Your task to perform on an android device: Search for "asus rog" on costco.com, select the first entry, add it to the cart, then select checkout. Image 0: 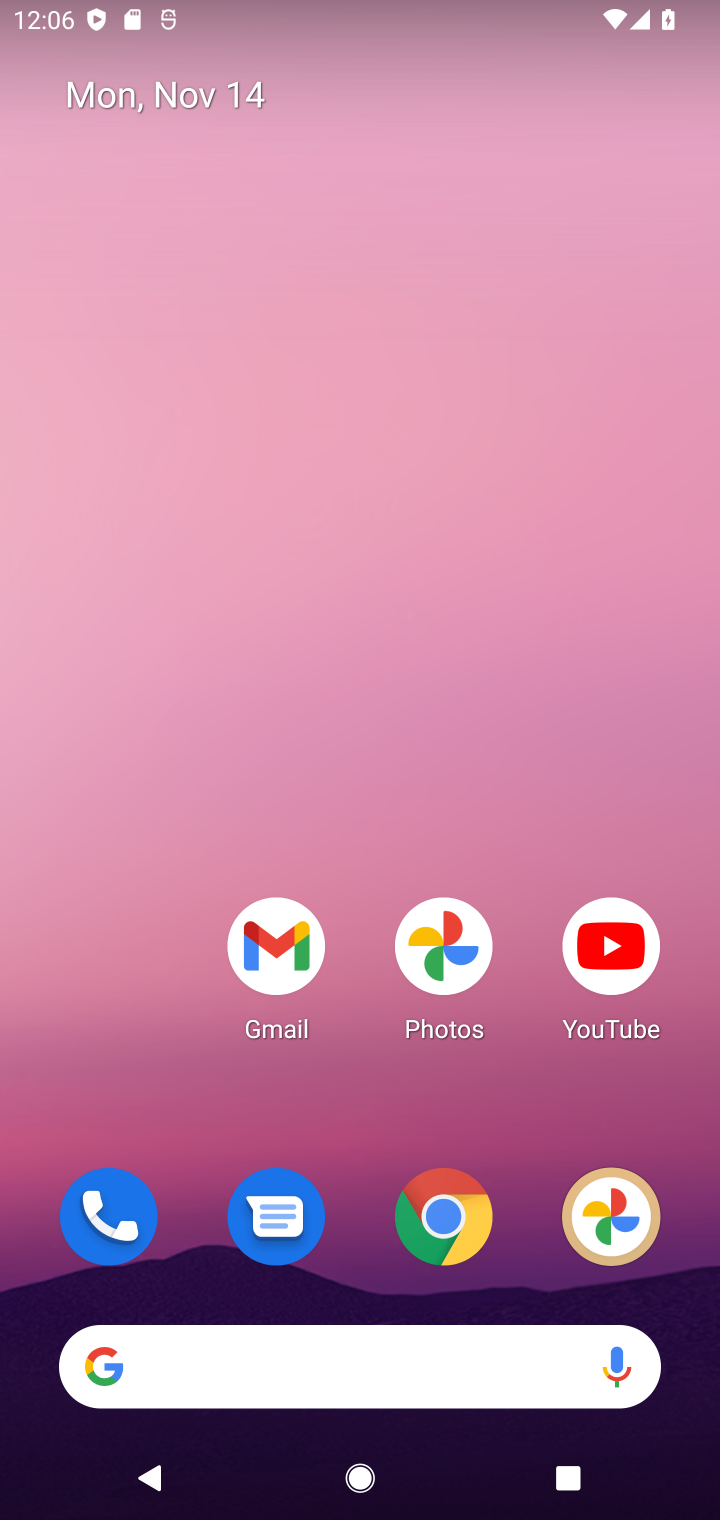
Step 0: click (437, 1222)
Your task to perform on an android device: Search for "asus rog" on costco.com, select the first entry, add it to the cart, then select checkout. Image 1: 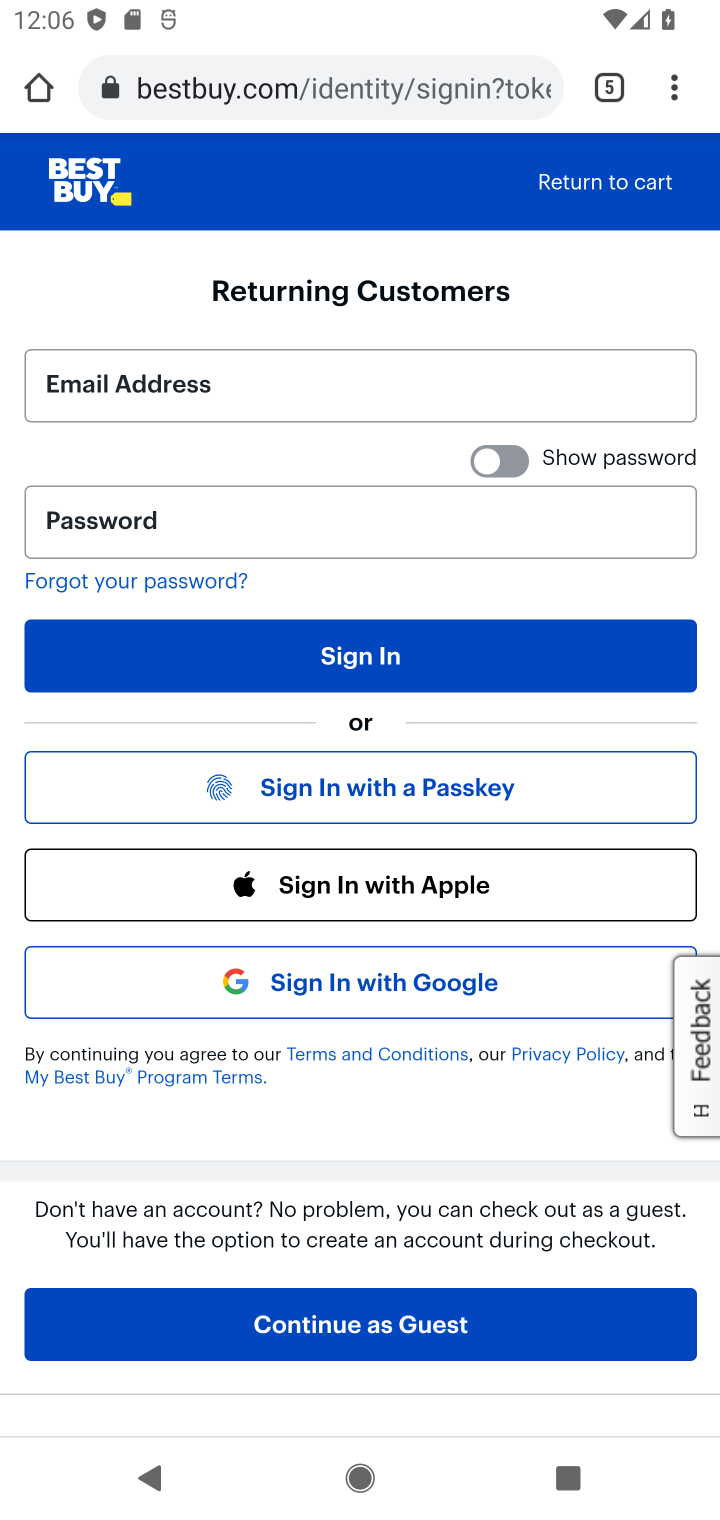
Step 1: click (612, 86)
Your task to perform on an android device: Search for "asus rog" on costco.com, select the first entry, add it to the cart, then select checkout. Image 2: 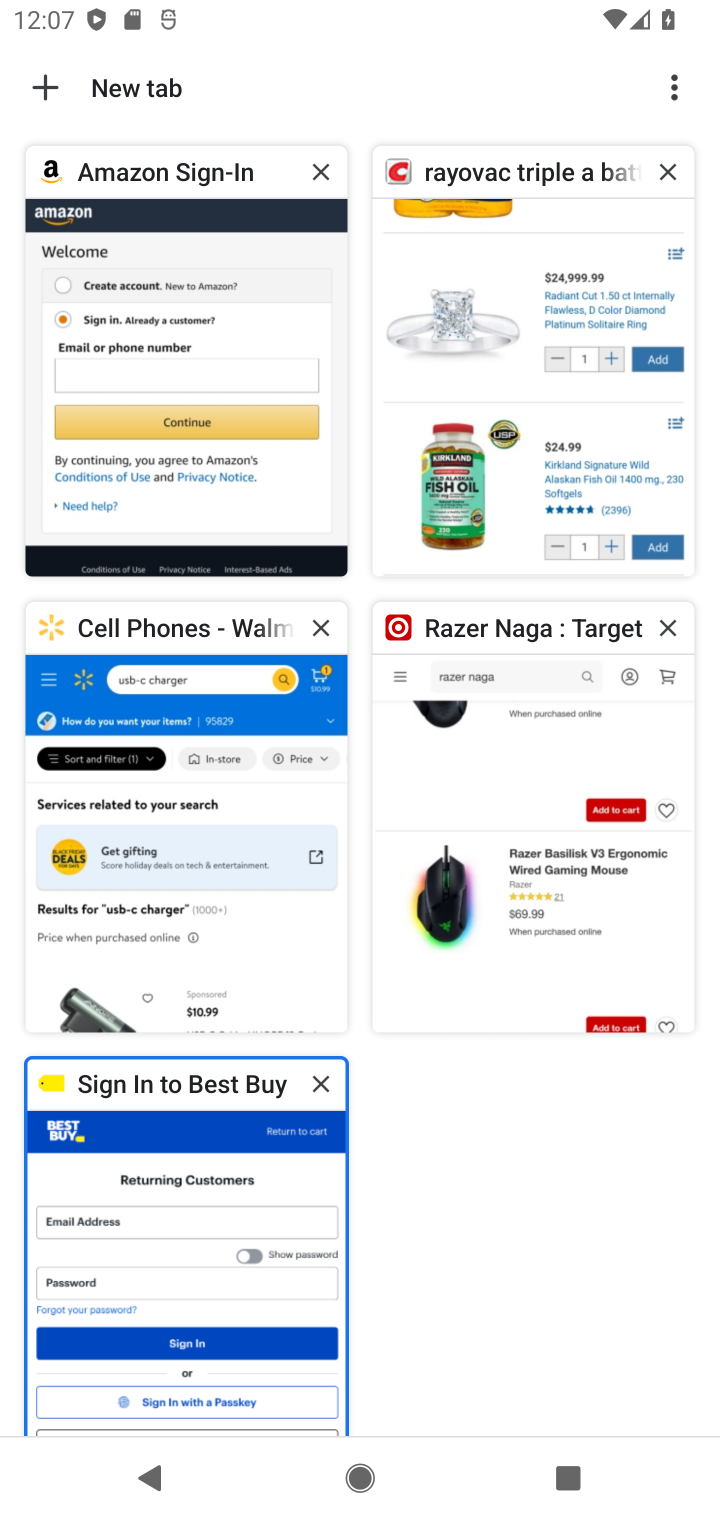
Step 2: click (541, 411)
Your task to perform on an android device: Search for "asus rog" on costco.com, select the first entry, add it to the cart, then select checkout. Image 3: 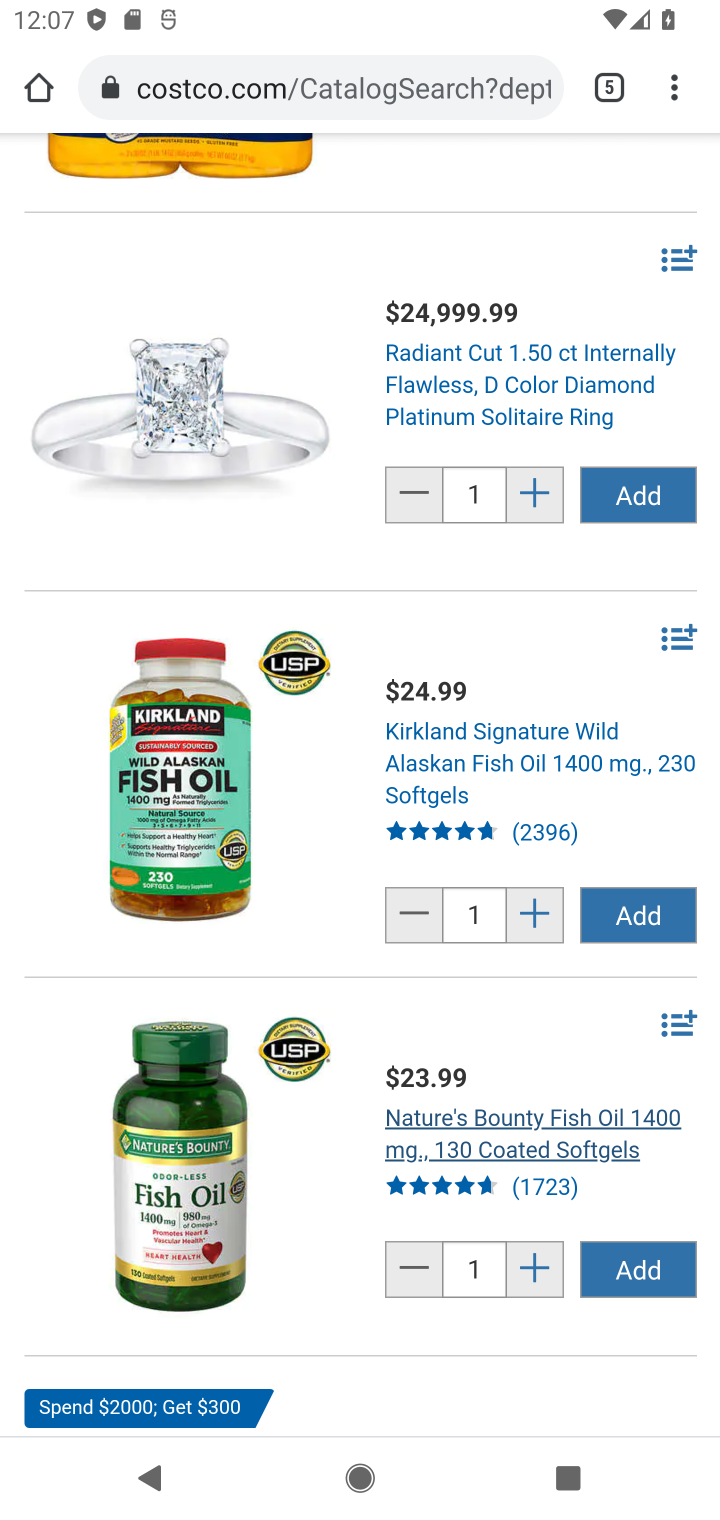
Step 3: drag from (341, 232) to (396, 1467)
Your task to perform on an android device: Search for "asus rog" on costco.com, select the first entry, add it to the cart, then select checkout. Image 4: 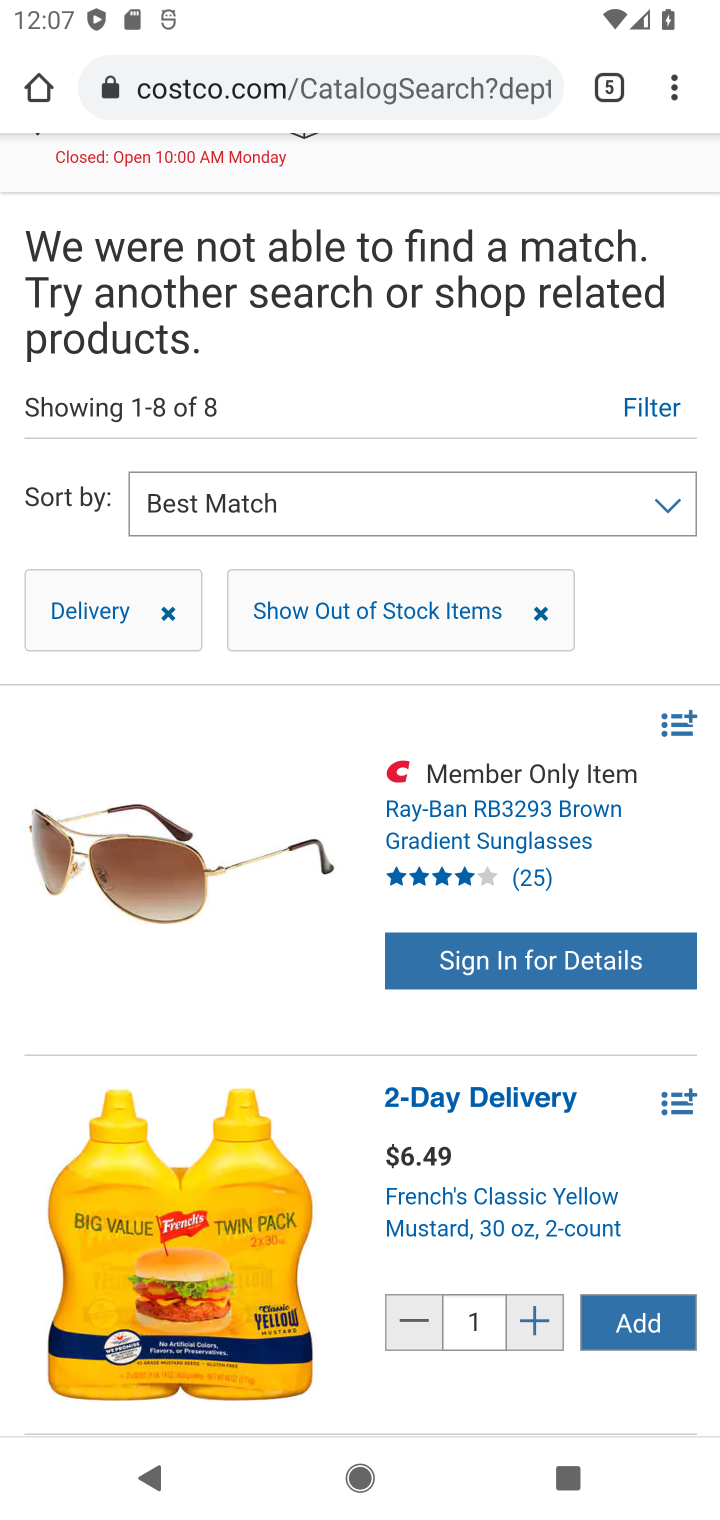
Step 4: drag from (519, 241) to (563, 1287)
Your task to perform on an android device: Search for "asus rog" on costco.com, select the first entry, add it to the cart, then select checkout. Image 5: 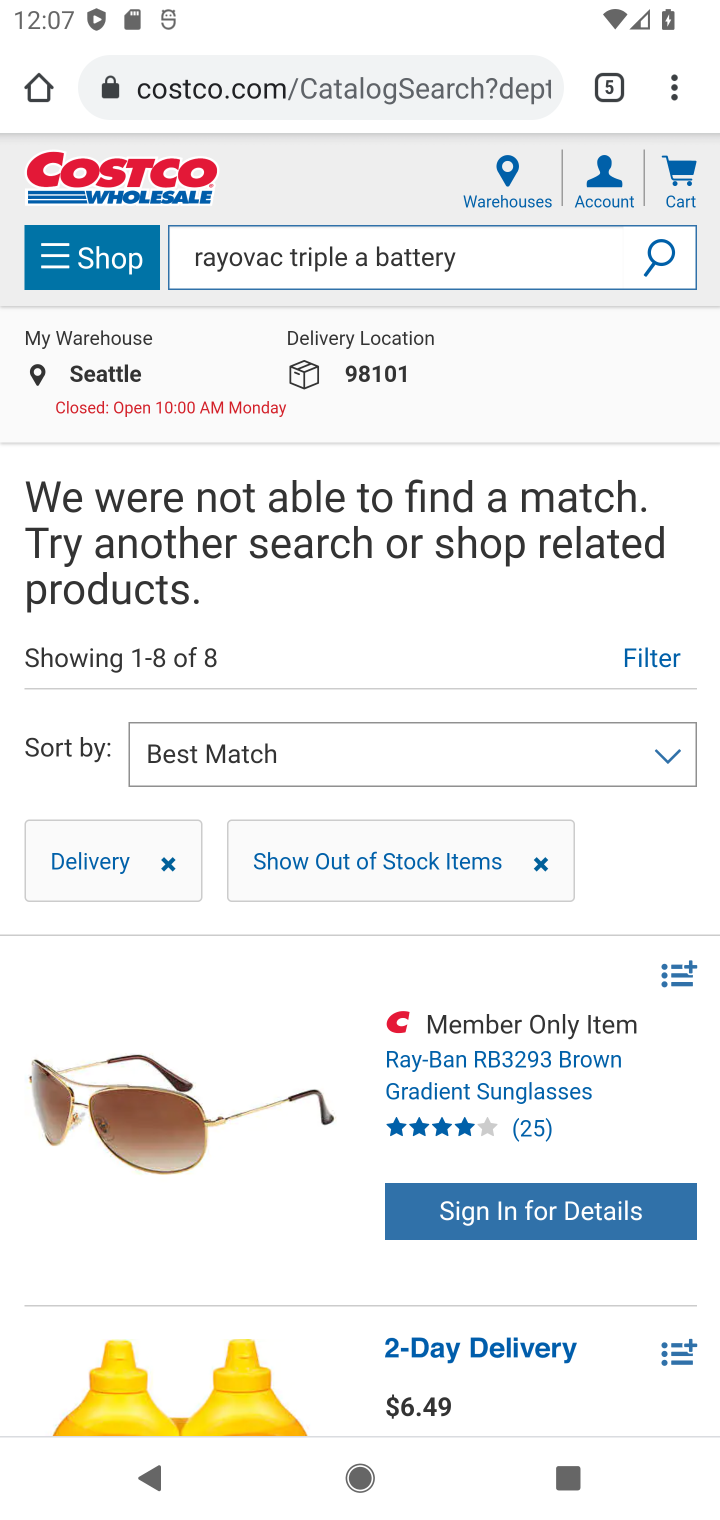
Step 5: click (419, 256)
Your task to perform on an android device: Search for "asus rog" on costco.com, select the first entry, add it to the cart, then select checkout. Image 6: 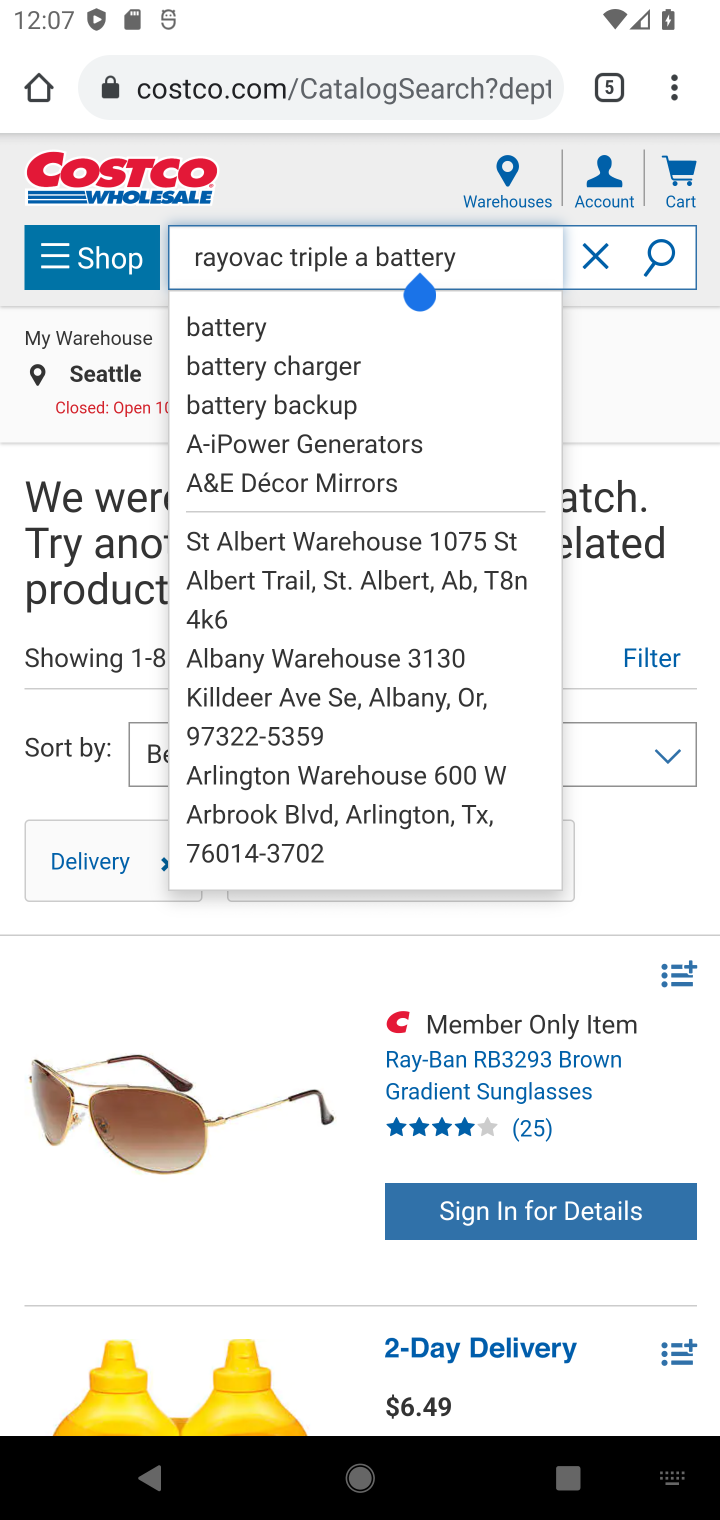
Step 6: click (588, 268)
Your task to perform on an android device: Search for "asus rog" on costco.com, select the first entry, add it to the cart, then select checkout. Image 7: 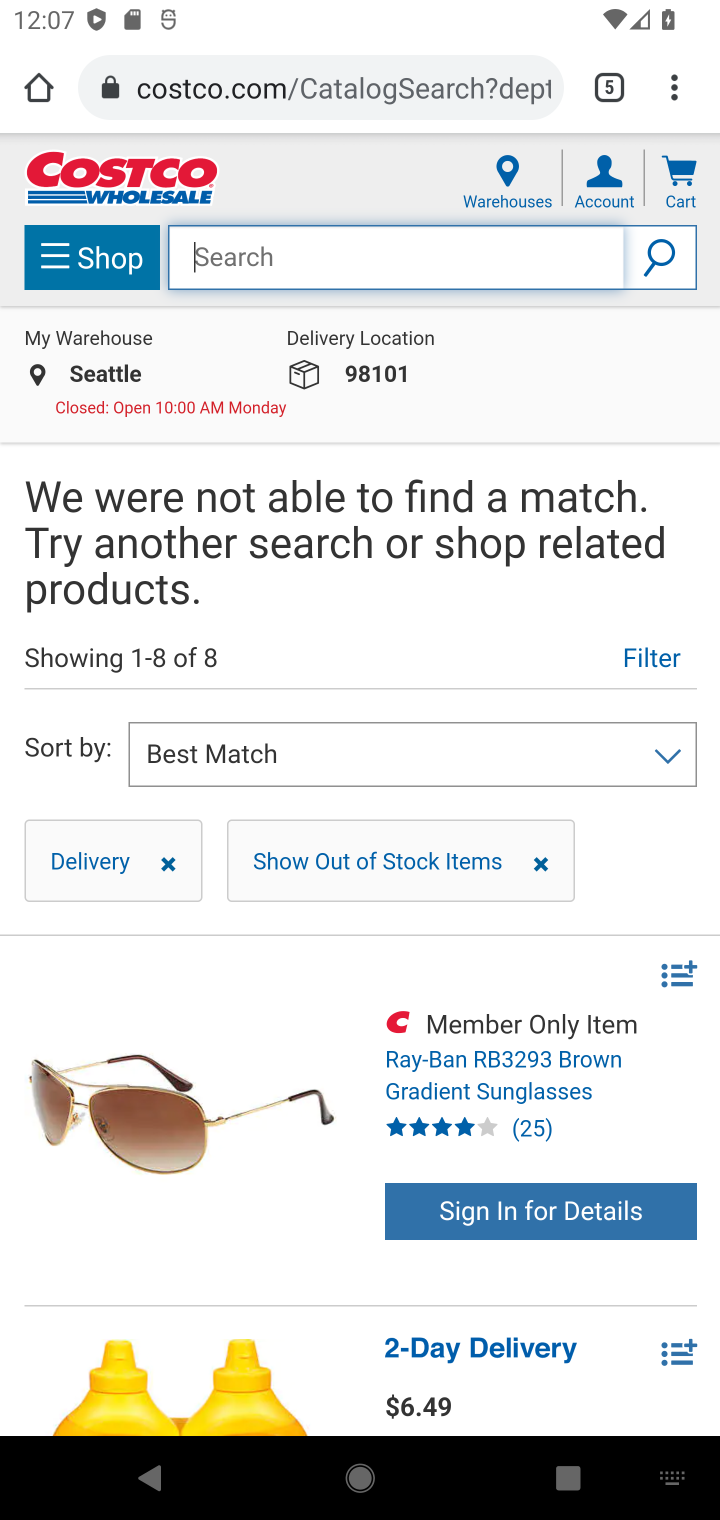
Step 7: type "macbook"
Your task to perform on an android device: Search for "asus rog" on costco.com, select the first entry, add it to the cart, then select checkout. Image 8: 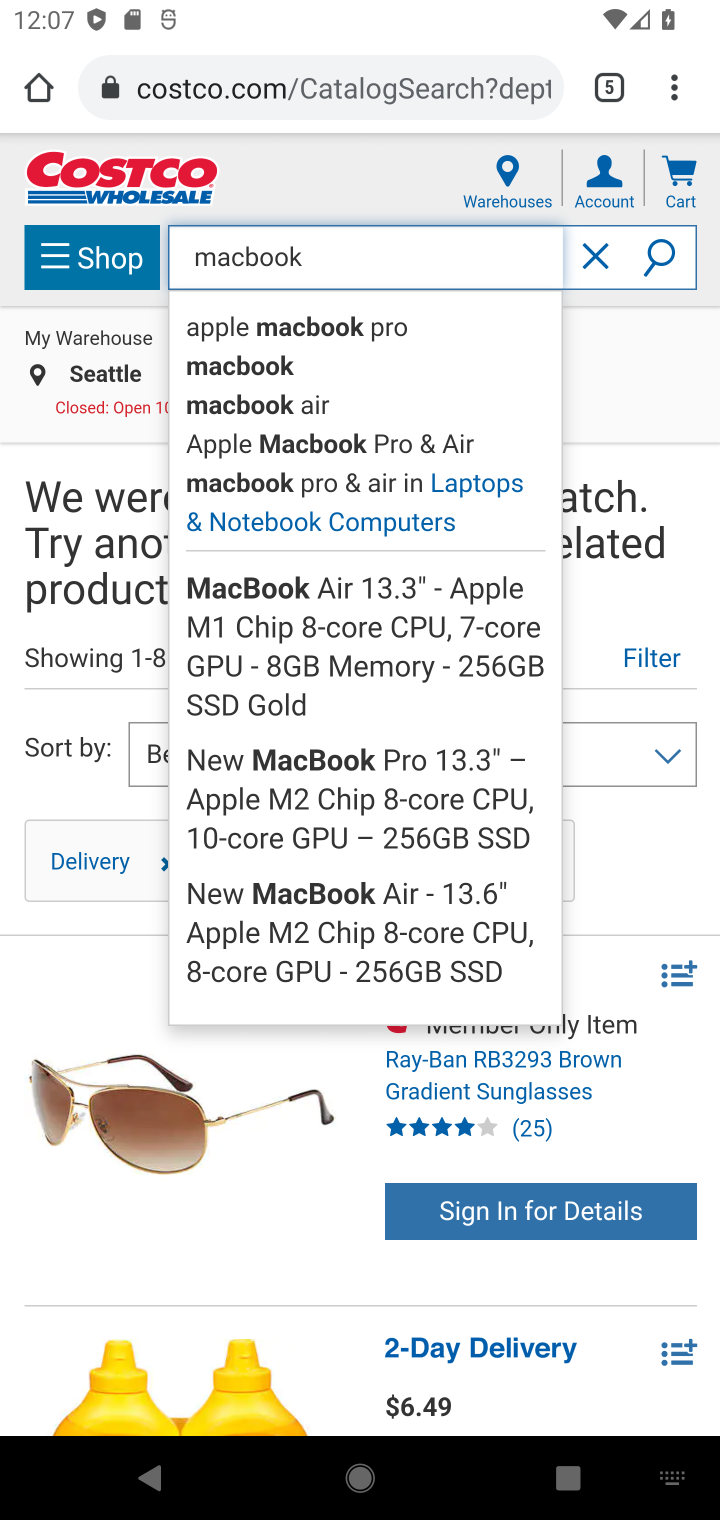
Step 8: click (595, 255)
Your task to perform on an android device: Search for "asus rog" on costco.com, select the first entry, add it to the cart, then select checkout. Image 9: 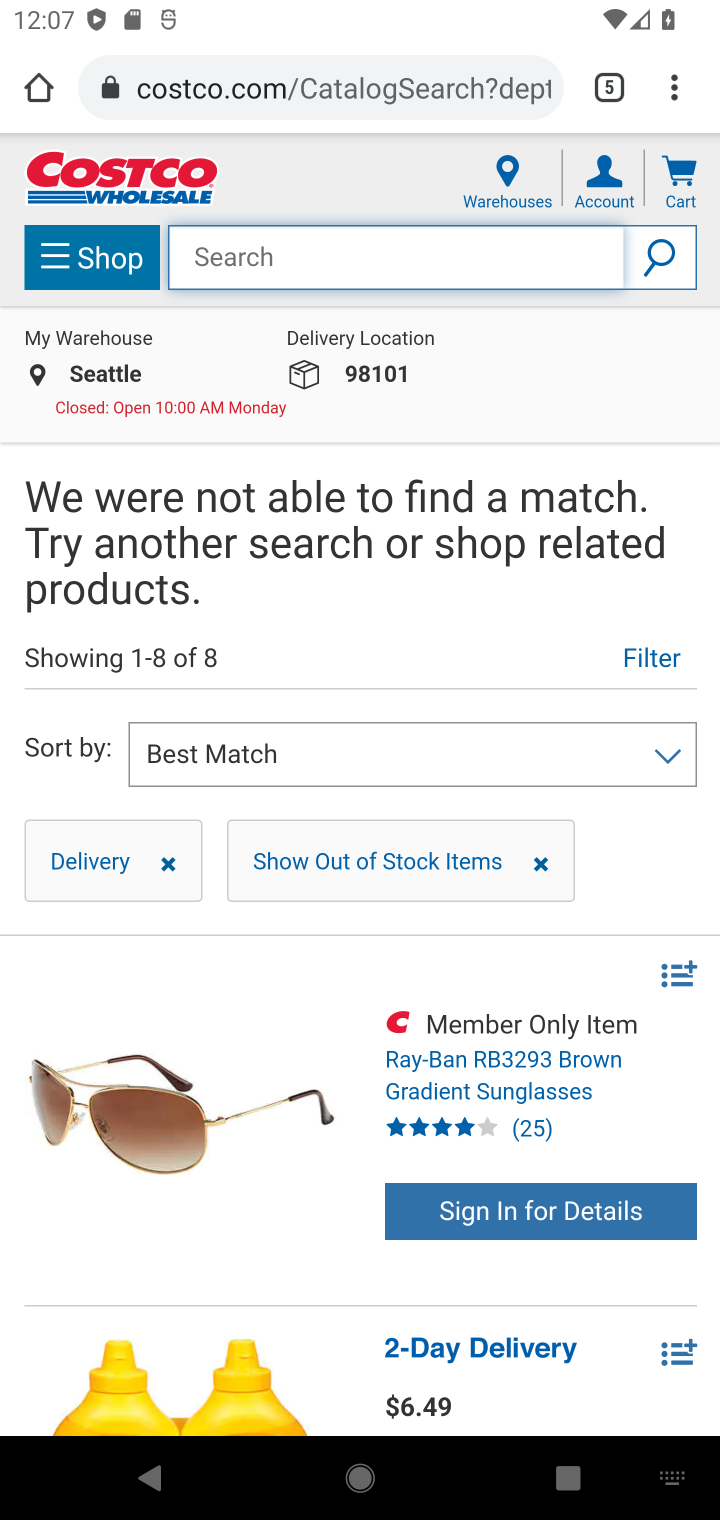
Step 9: type "asus rog"
Your task to perform on an android device: Search for "asus rog" on costco.com, select the first entry, add it to the cart, then select checkout. Image 10: 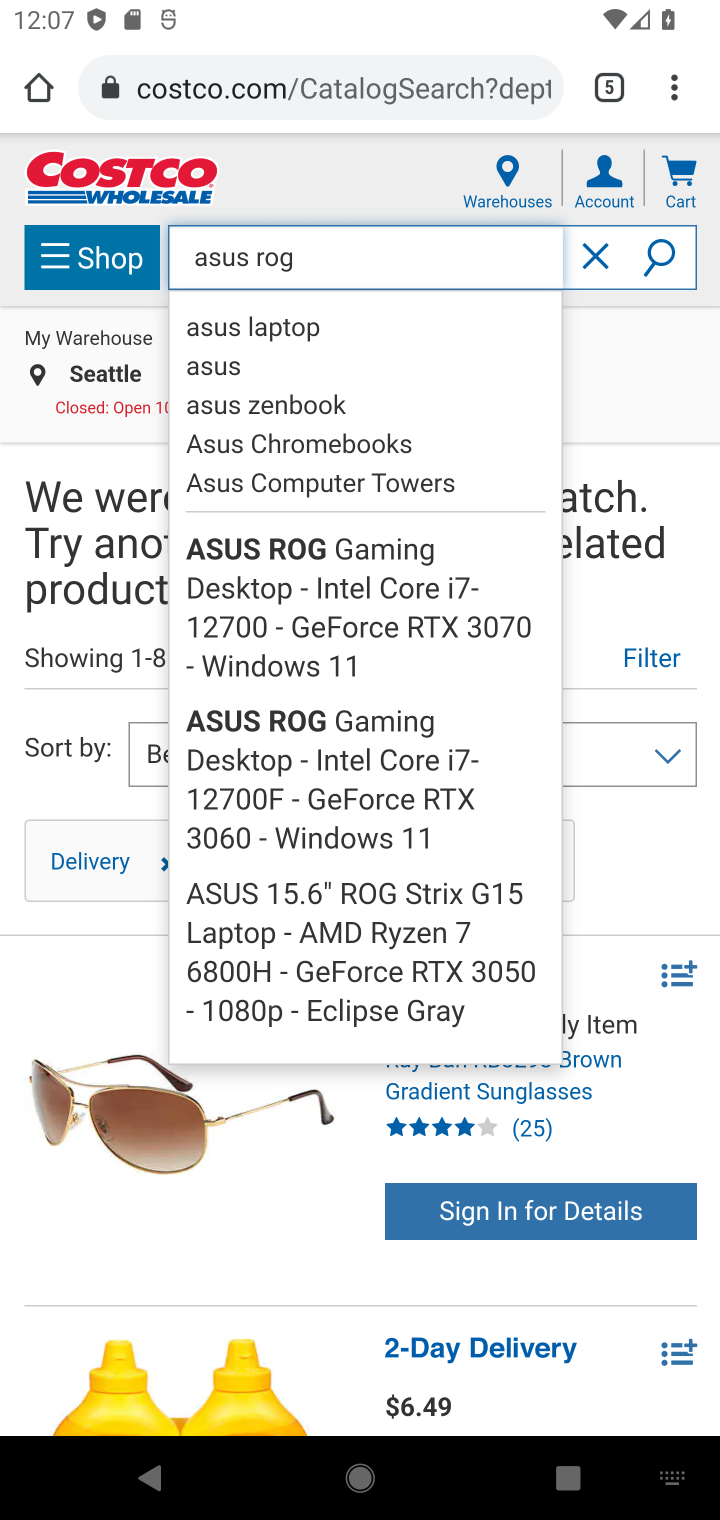
Step 10: click (318, 603)
Your task to perform on an android device: Search for "asus rog" on costco.com, select the first entry, add it to the cart, then select checkout. Image 11: 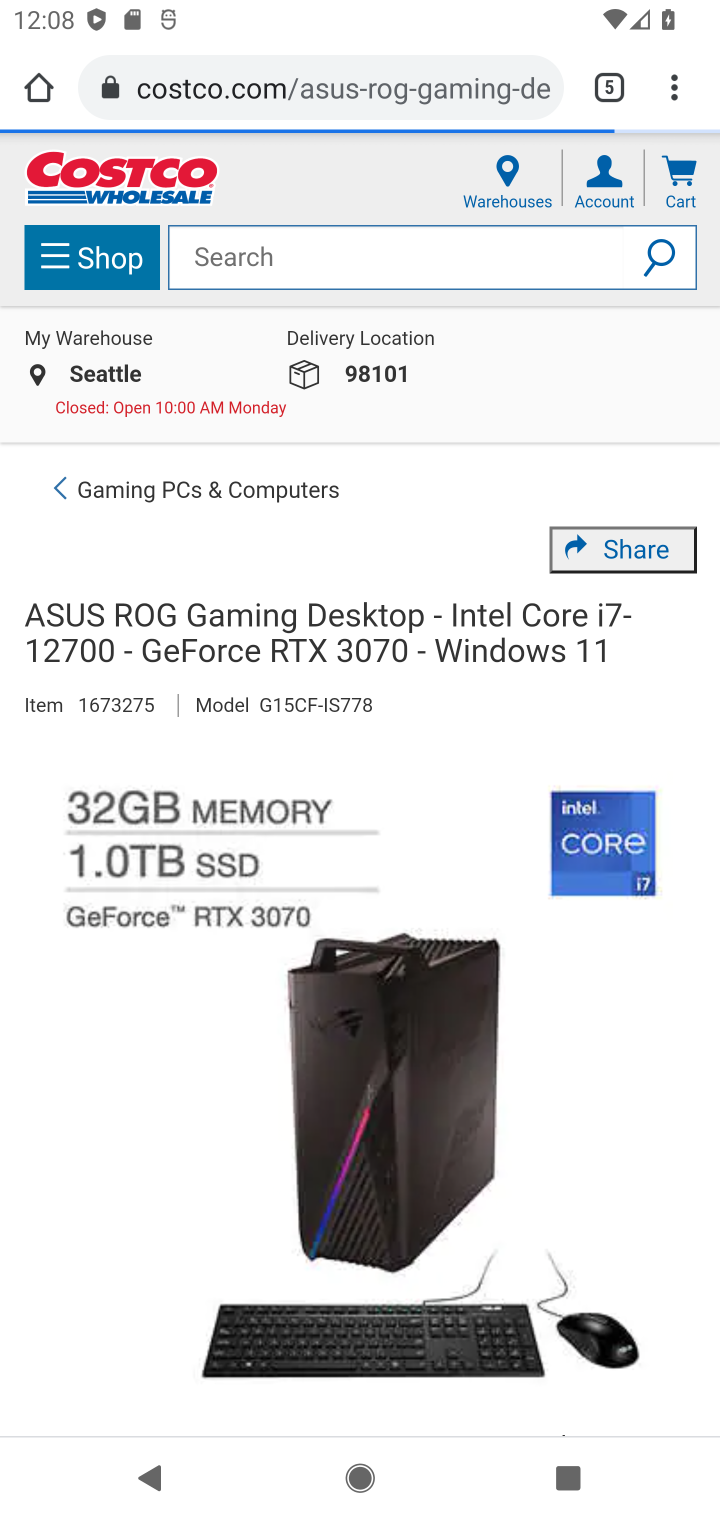
Step 11: drag from (203, 1106) to (423, 405)
Your task to perform on an android device: Search for "asus rog" on costco.com, select the first entry, add it to the cart, then select checkout. Image 12: 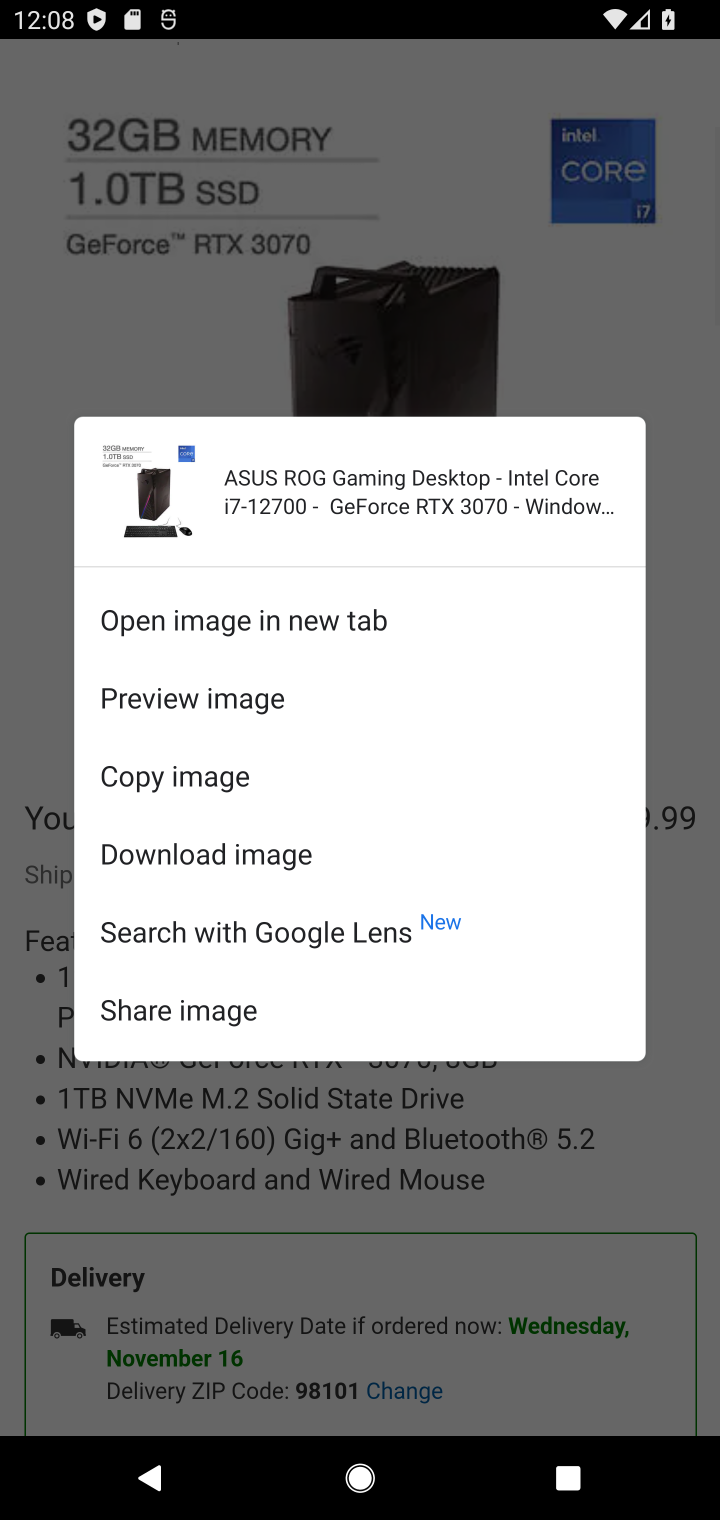
Step 12: drag from (337, 1048) to (710, 396)
Your task to perform on an android device: Search for "asus rog" on costco.com, select the first entry, add it to the cart, then select checkout. Image 13: 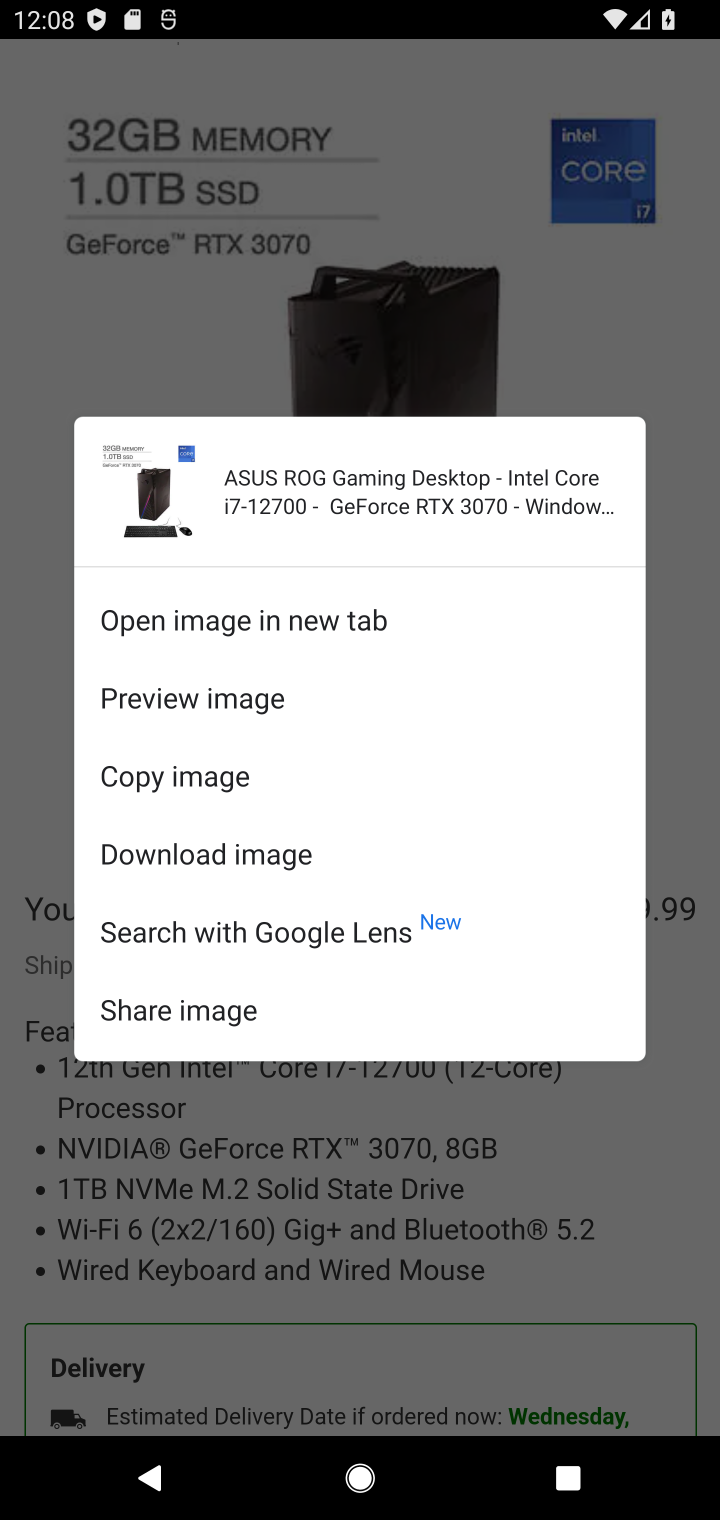
Step 13: click (537, 1143)
Your task to perform on an android device: Search for "asus rog" on costco.com, select the first entry, add it to the cart, then select checkout. Image 14: 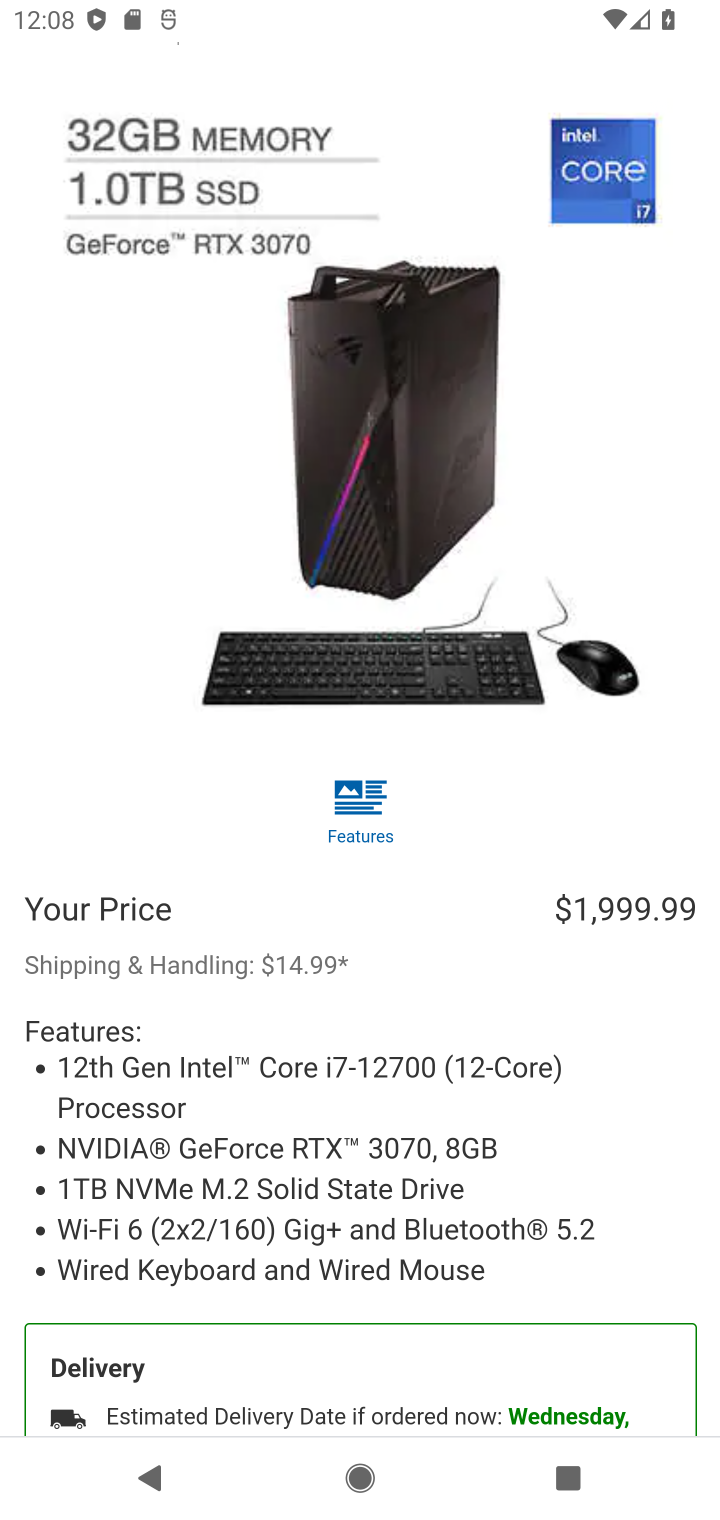
Step 14: drag from (509, 1166) to (717, 20)
Your task to perform on an android device: Search for "asus rog" on costco.com, select the first entry, add it to the cart, then select checkout. Image 15: 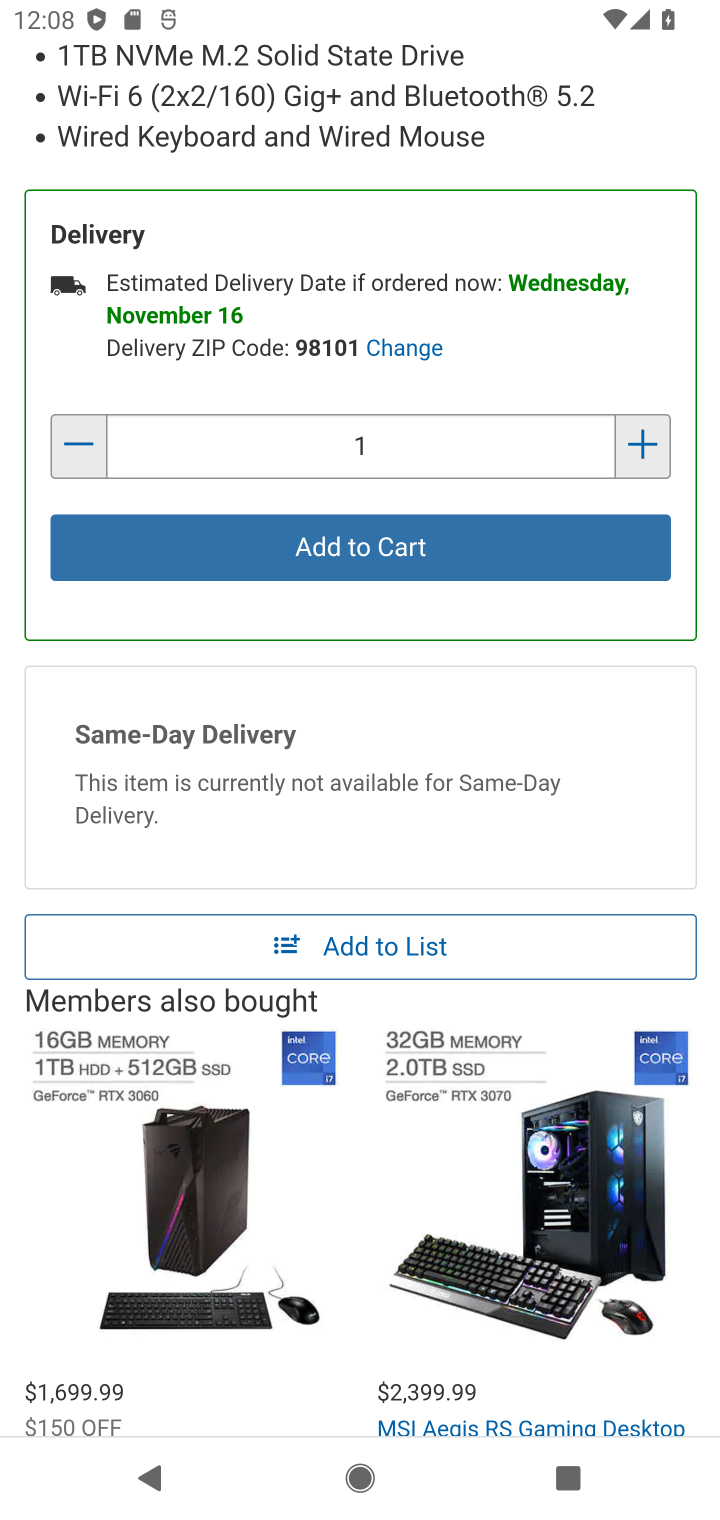
Step 15: click (398, 565)
Your task to perform on an android device: Search for "asus rog" on costco.com, select the first entry, add it to the cart, then select checkout. Image 16: 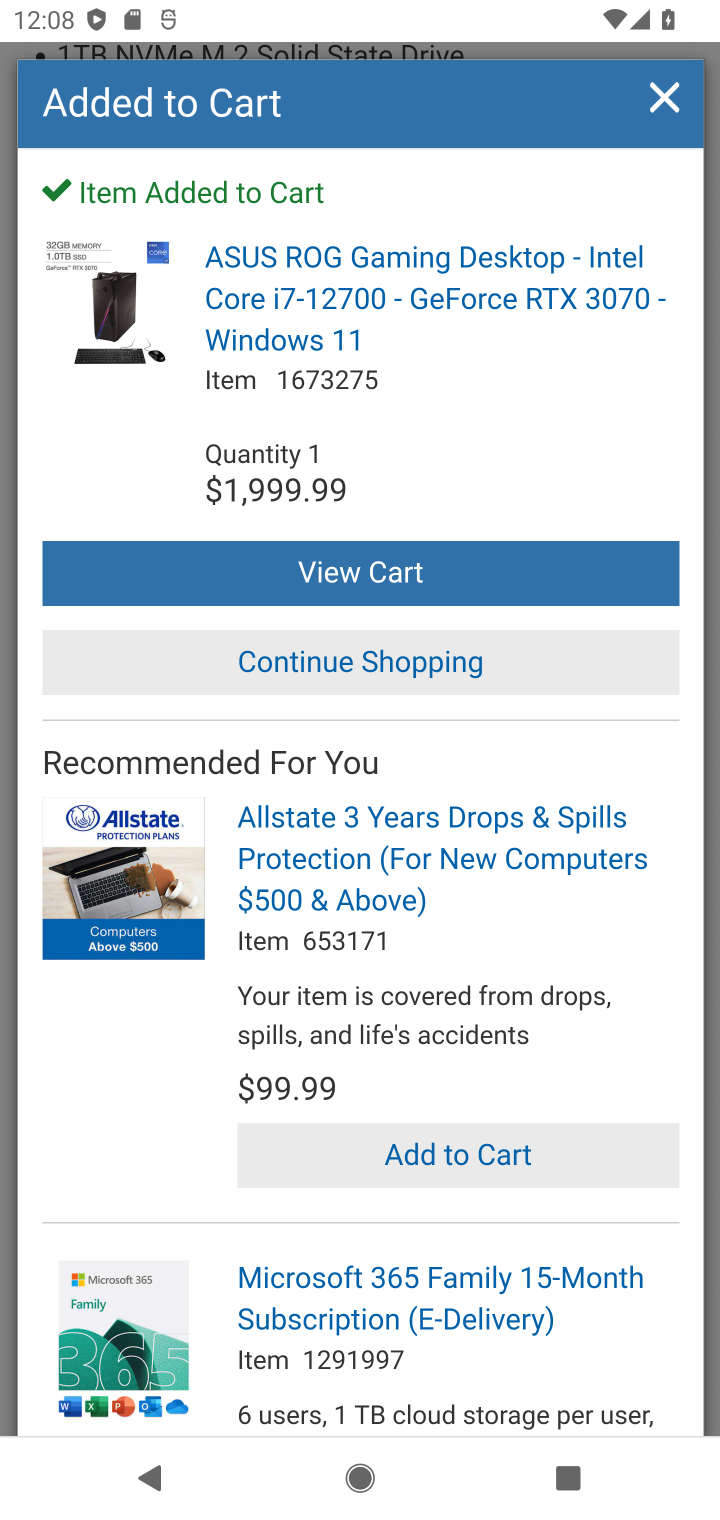
Step 16: click (398, 565)
Your task to perform on an android device: Search for "asus rog" on costco.com, select the first entry, add it to the cart, then select checkout. Image 17: 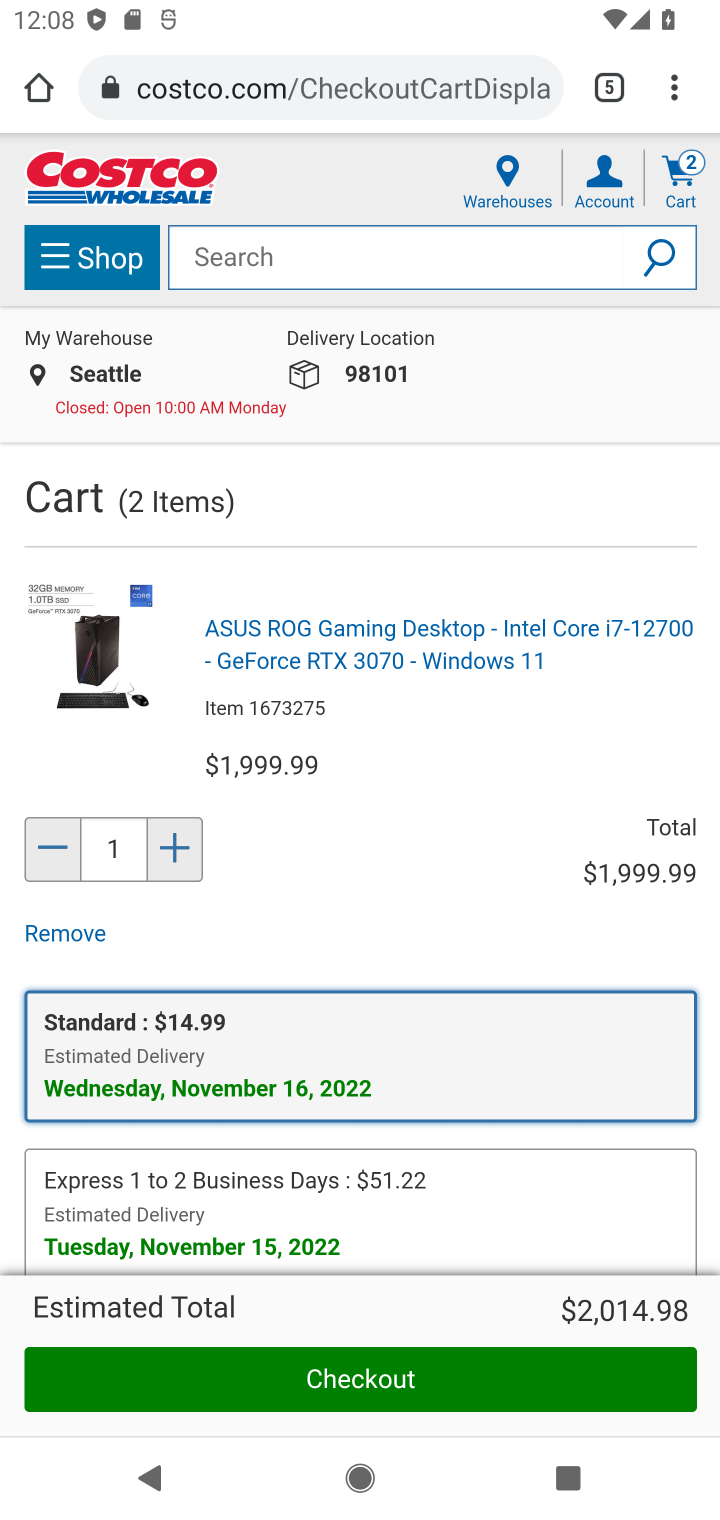
Step 17: click (342, 1388)
Your task to perform on an android device: Search for "asus rog" on costco.com, select the first entry, add it to the cart, then select checkout. Image 18: 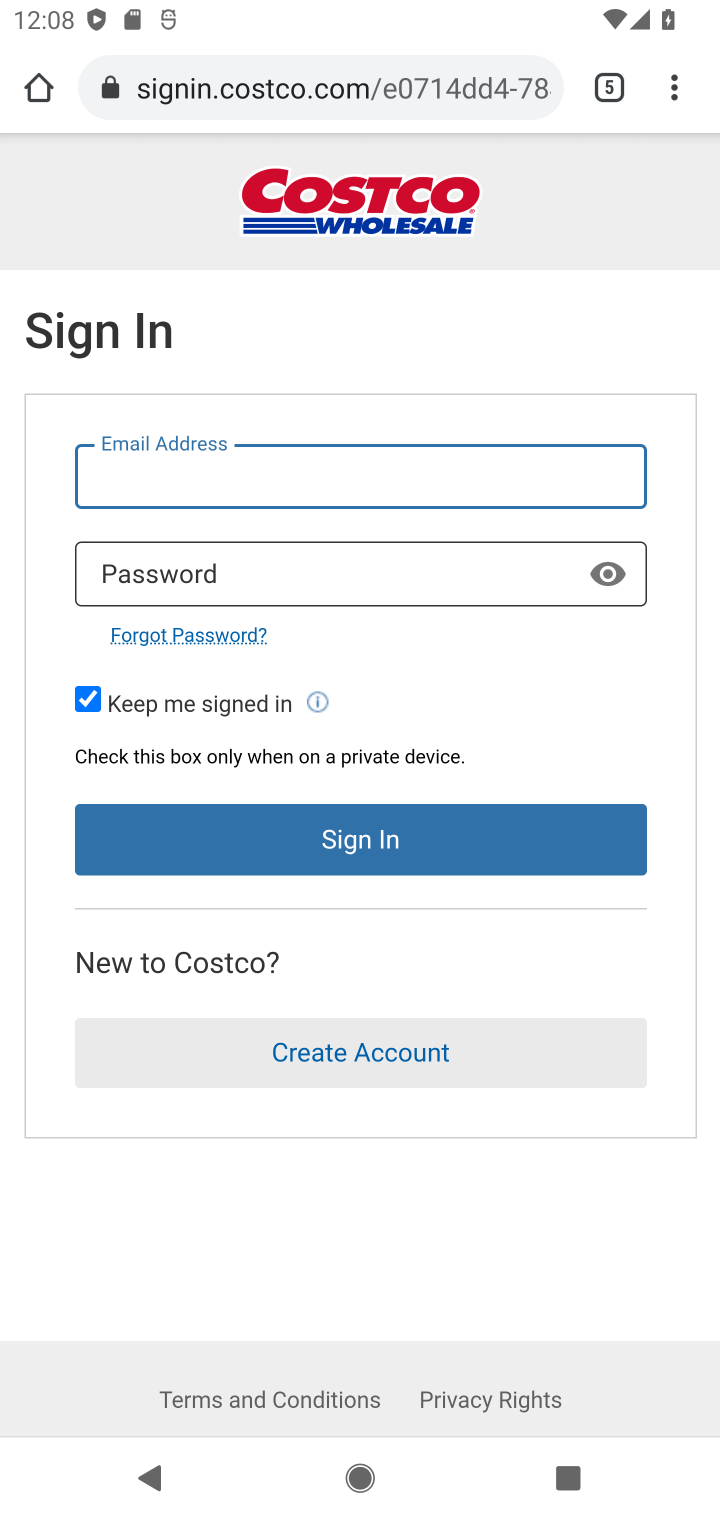
Step 18: task complete